Your task to perform on an android device: see sites visited before in the chrome app Image 0: 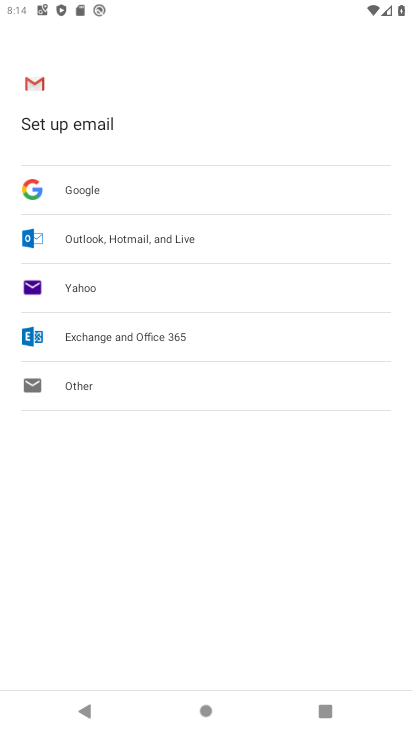
Step 0: press home button
Your task to perform on an android device: see sites visited before in the chrome app Image 1: 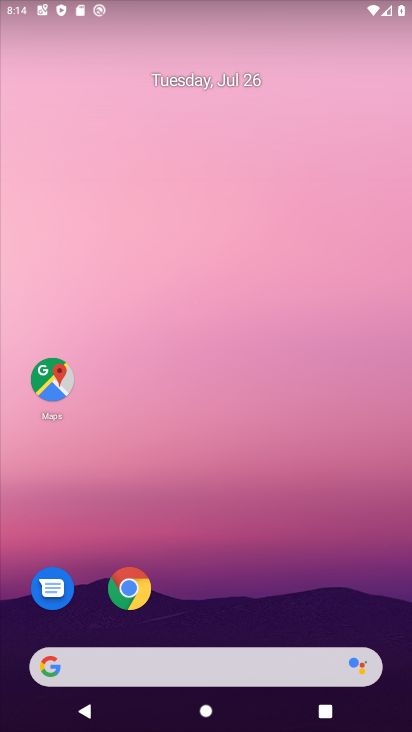
Step 1: click (140, 584)
Your task to perform on an android device: see sites visited before in the chrome app Image 2: 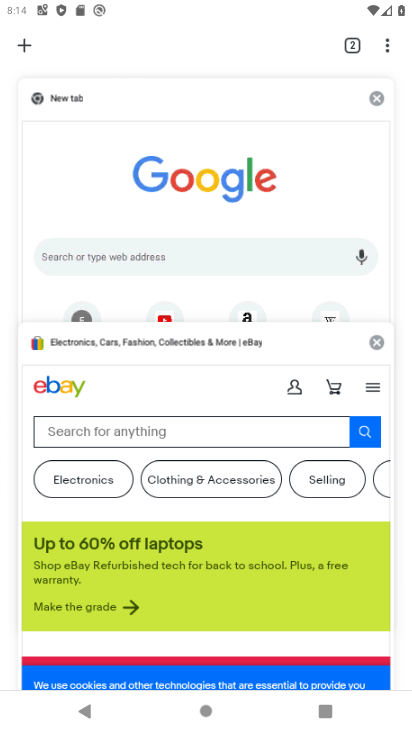
Step 2: task complete